Your task to perform on an android device: toggle translation in the chrome app Image 0: 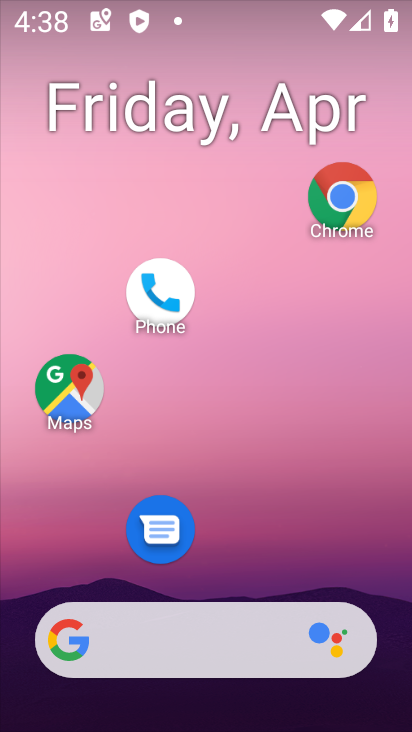
Step 0: drag from (240, 543) to (276, 0)
Your task to perform on an android device: toggle translation in the chrome app Image 1: 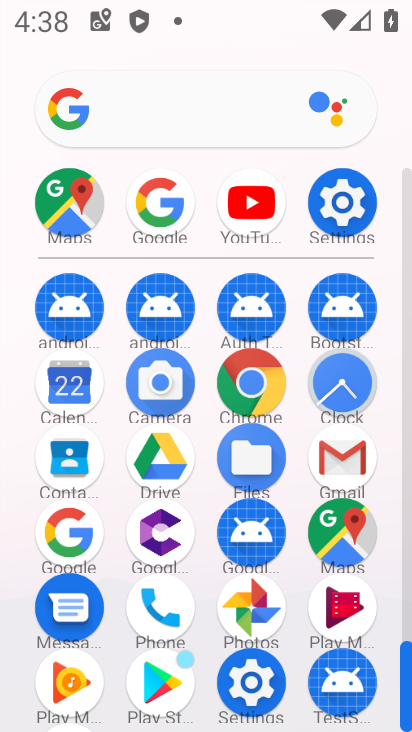
Step 1: click (249, 381)
Your task to perform on an android device: toggle translation in the chrome app Image 2: 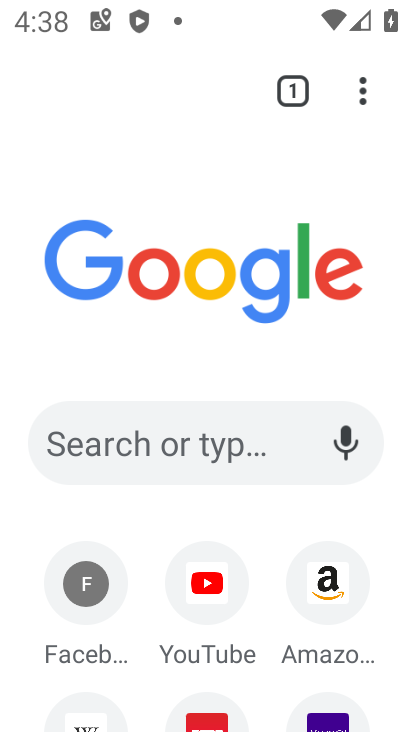
Step 2: click (361, 86)
Your task to perform on an android device: toggle translation in the chrome app Image 3: 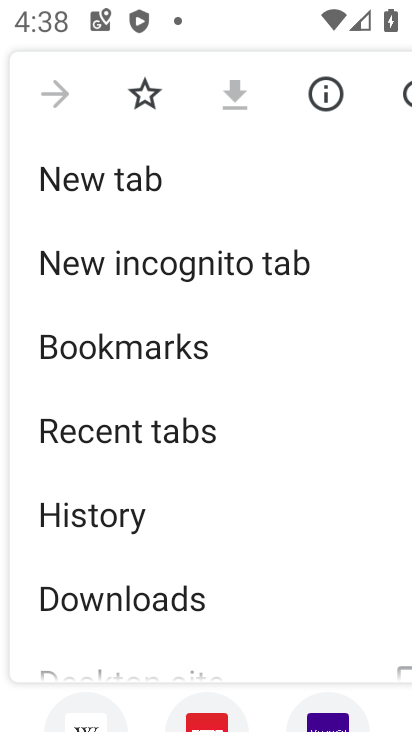
Step 3: drag from (214, 614) to (257, 166)
Your task to perform on an android device: toggle translation in the chrome app Image 4: 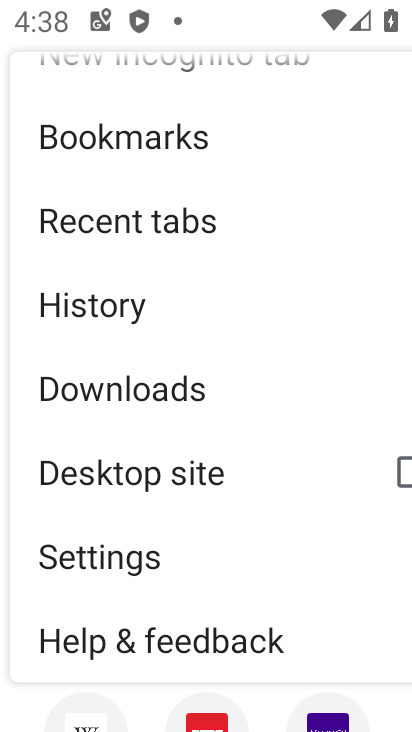
Step 4: click (161, 555)
Your task to perform on an android device: toggle translation in the chrome app Image 5: 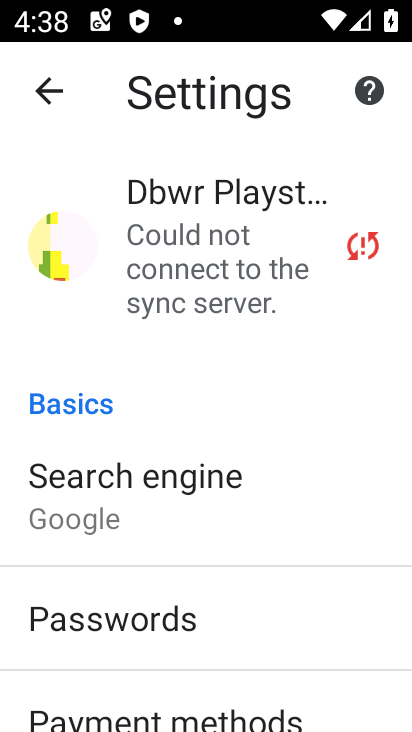
Step 5: drag from (243, 663) to (251, 313)
Your task to perform on an android device: toggle translation in the chrome app Image 6: 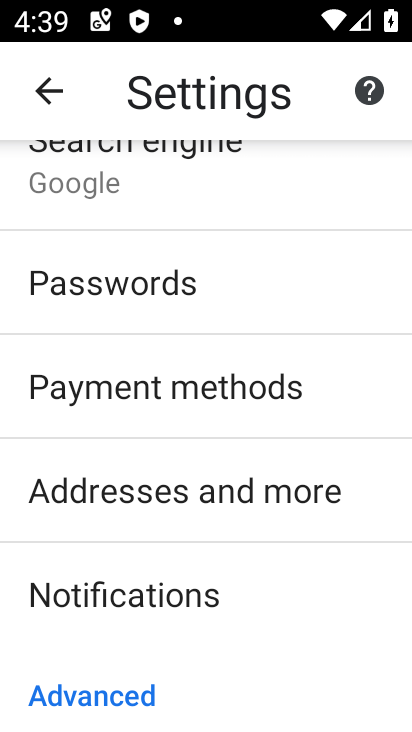
Step 6: drag from (199, 638) to (237, 187)
Your task to perform on an android device: toggle translation in the chrome app Image 7: 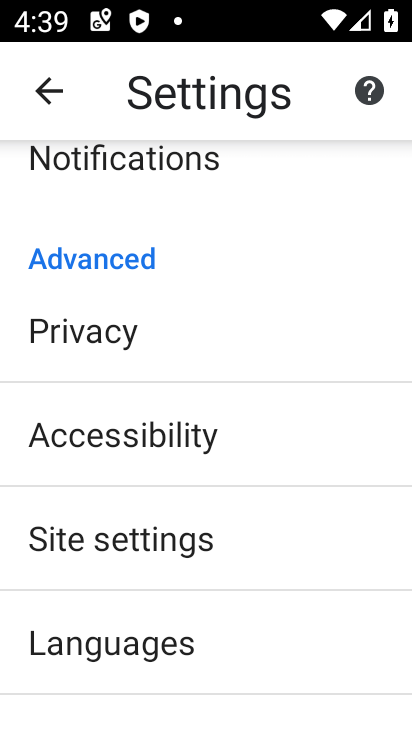
Step 7: click (202, 643)
Your task to perform on an android device: toggle translation in the chrome app Image 8: 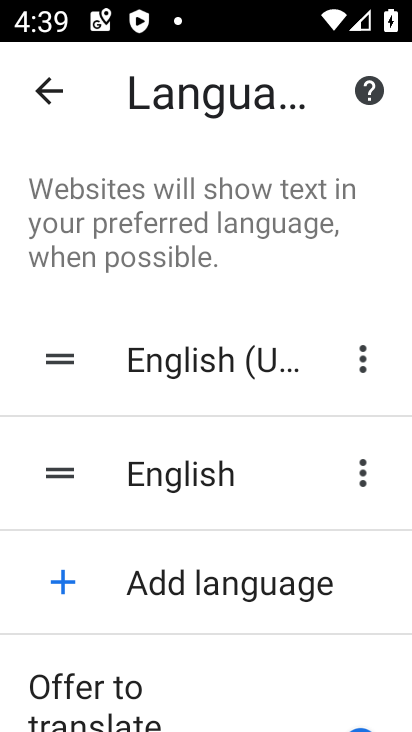
Step 8: drag from (217, 653) to (271, 337)
Your task to perform on an android device: toggle translation in the chrome app Image 9: 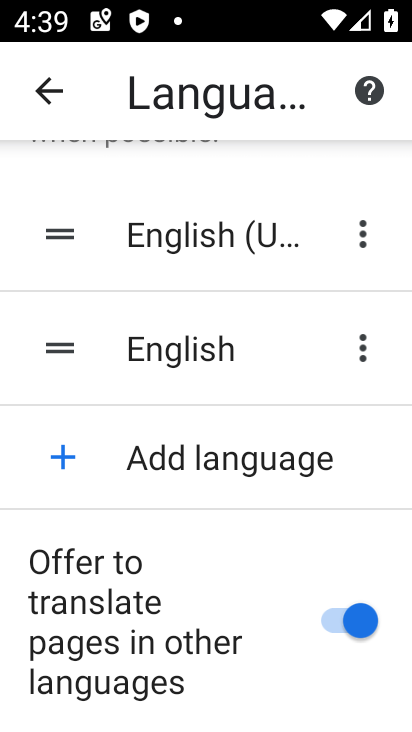
Step 9: click (335, 617)
Your task to perform on an android device: toggle translation in the chrome app Image 10: 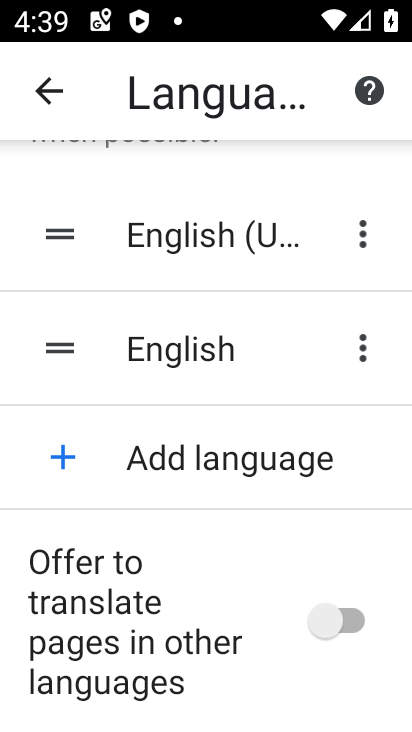
Step 10: task complete